Your task to perform on an android device: What's the weather? Image 0: 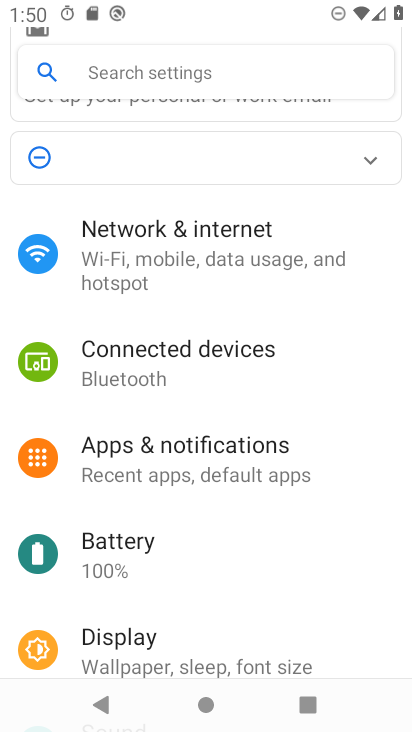
Step 0: press home button
Your task to perform on an android device: What's the weather? Image 1: 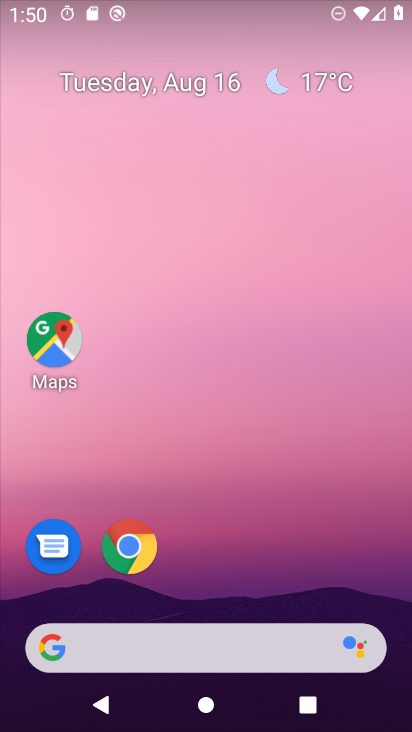
Step 1: drag from (206, 569) to (203, 130)
Your task to perform on an android device: What's the weather? Image 2: 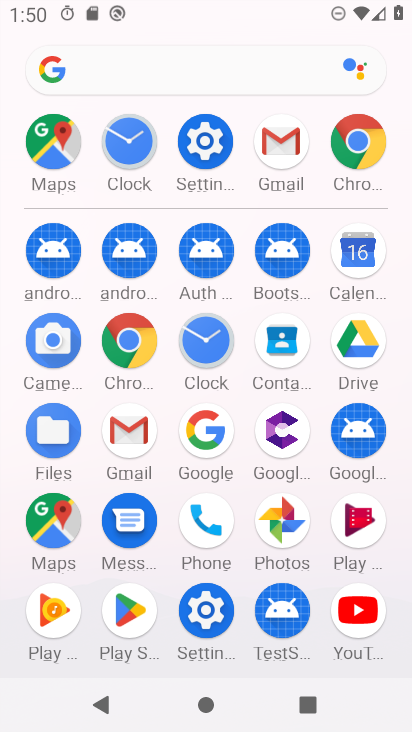
Step 2: click (198, 433)
Your task to perform on an android device: What's the weather? Image 3: 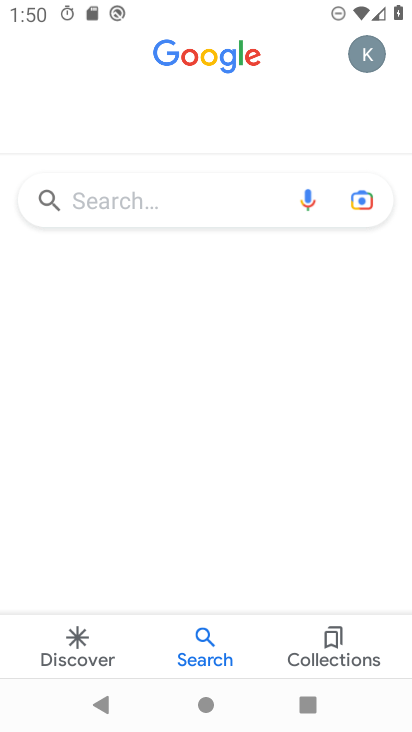
Step 3: click (144, 193)
Your task to perform on an android device: What's the weather? Image 4: 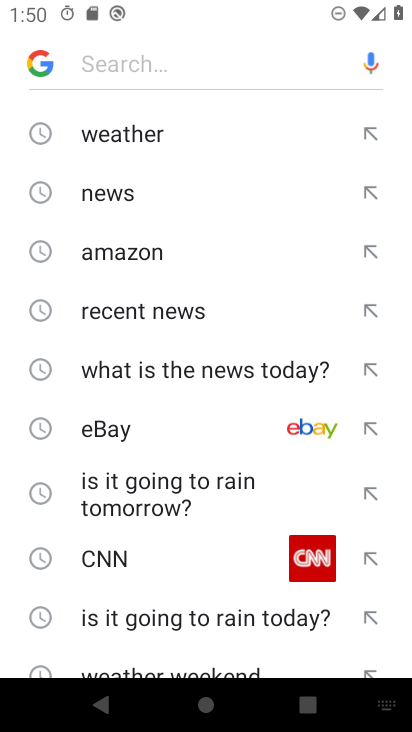
Step 4: click (128, 134)
Your task to perform on an android device: What's the weather? Image 5: 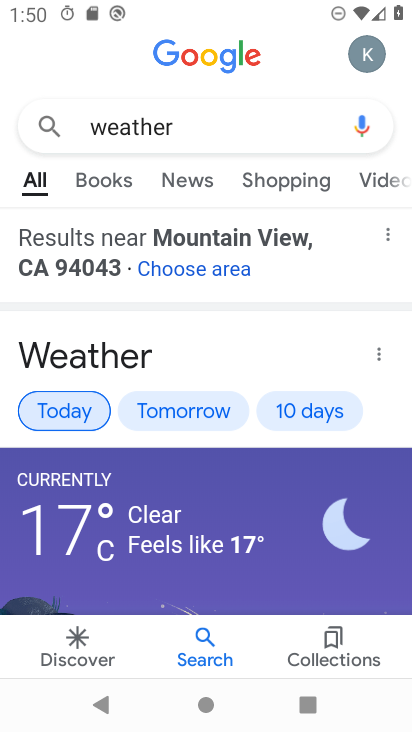
Step 5: click (52, 417)
Your task to perform on an android device: What's the weather? Image 6: 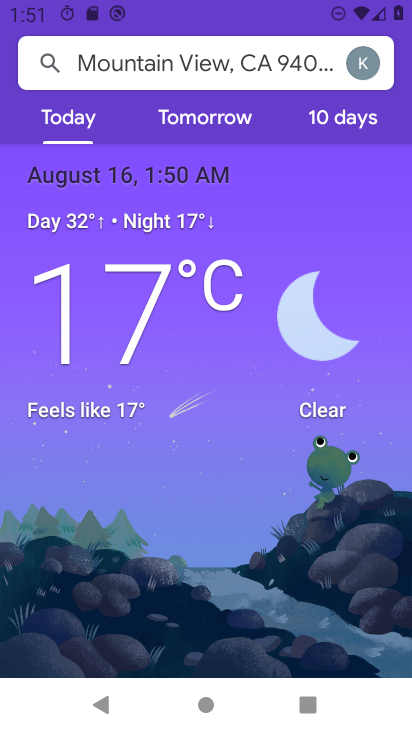
Step 6: task complete